Your task to perform on an android device: turn smart compose on in the gmail app Image 0: 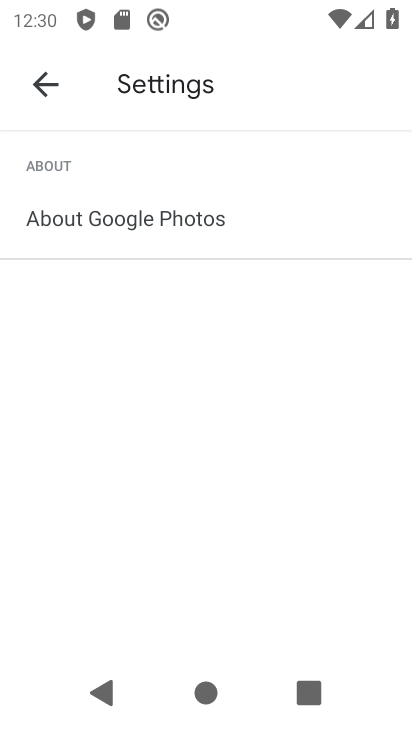
Step 0: press home button
Your task to perform on an android device: turn smart compose on in the gmail app Image 1: 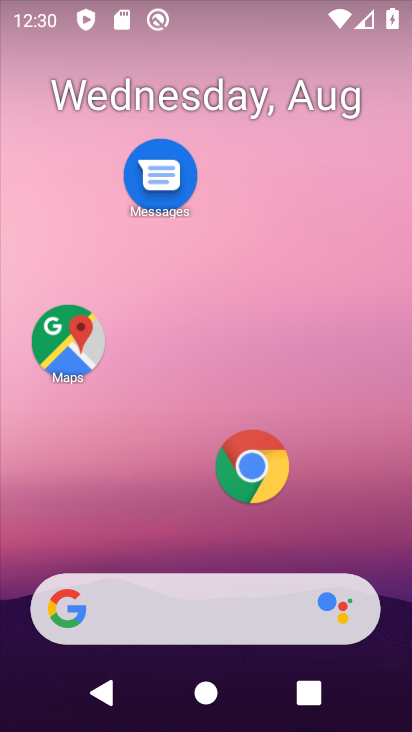
Step 1: drag from (176, 542) to (209, 132)
Your task to perform on an android device: turn smart compose on in the gmail app Image 2: 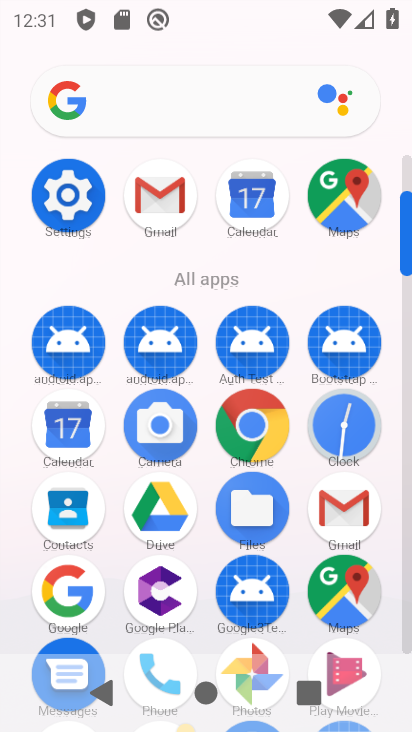
Step 2: click (157, 199)
Your task to perform on an android device: turn smart compose on in the gmail app Image 3: 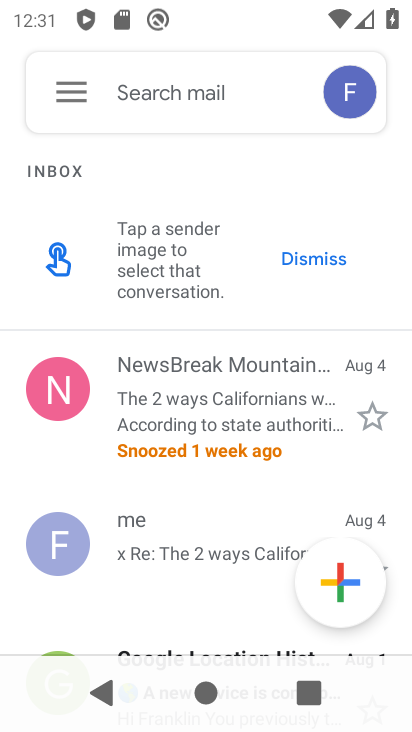
Step 3: click (71, 93)
Your task to perform on an android device: turn smart compose on in the gmail app Image 4: 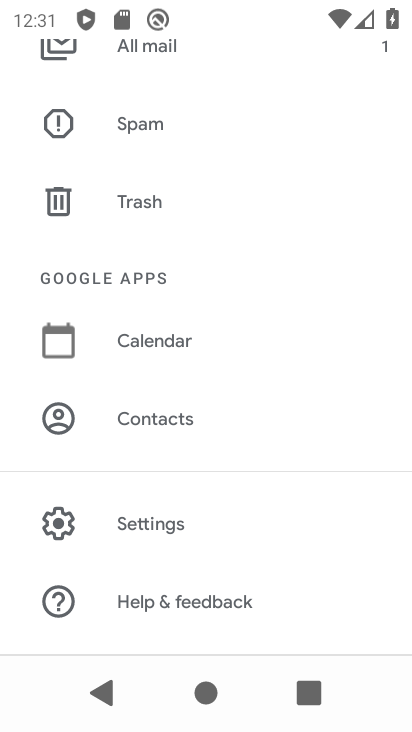
Step 4: click (151, 523)
Your task to perform on an android device: turn smart compose on in the gmail app Image 5: 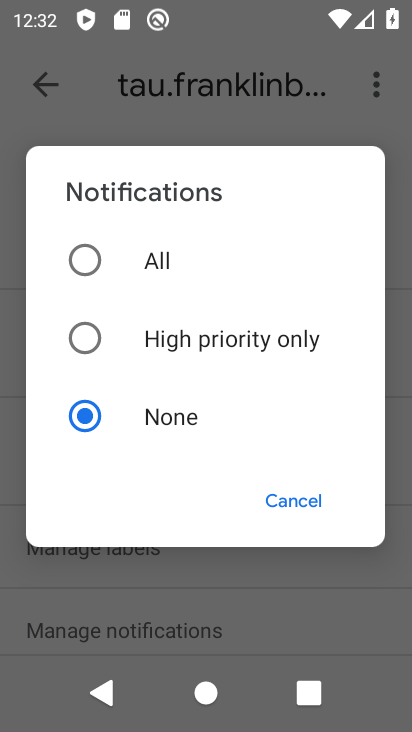
Step 5: task complete